Your task to perform on an android device: check data usage Image 0: 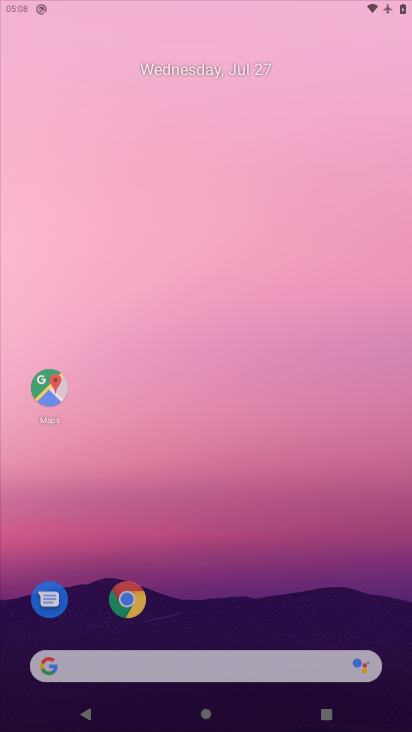
Step 0: press home button
Your task to perform on an android device: check data usage Image 1: 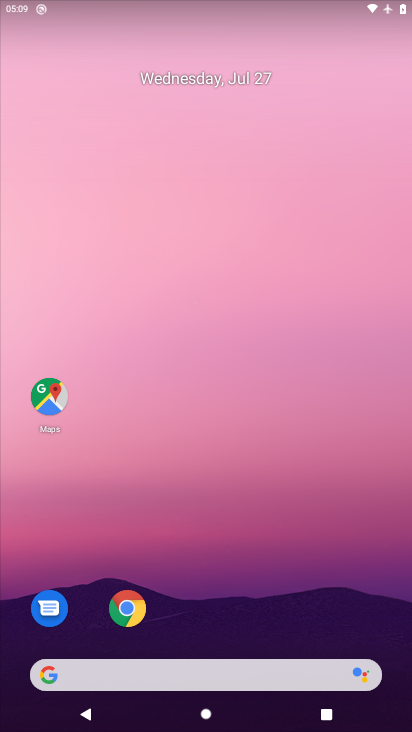
Step 1: click (245, 637)
Your task to perform on an android device: check data usage Image 2: 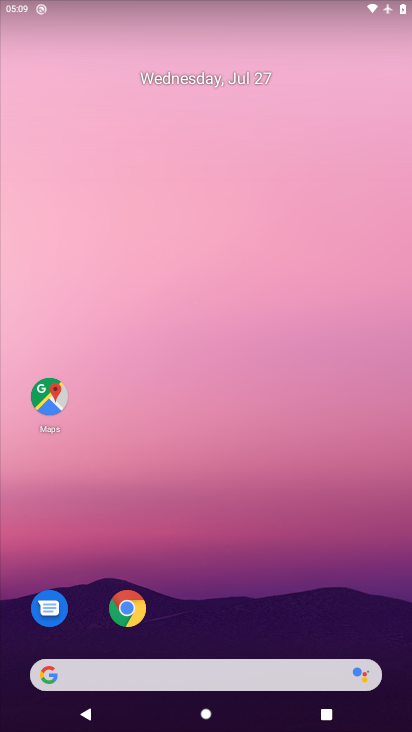
Step 2: drag from (252, 624) to (171, 168)
Your task to perform on an android device: check data usage Image 3: 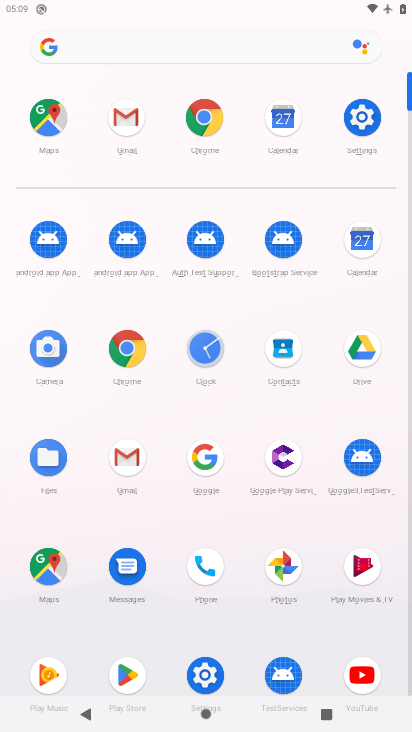
Step 3: click (366, 110)
Your task to perform on an android device: check data usage Image 4: 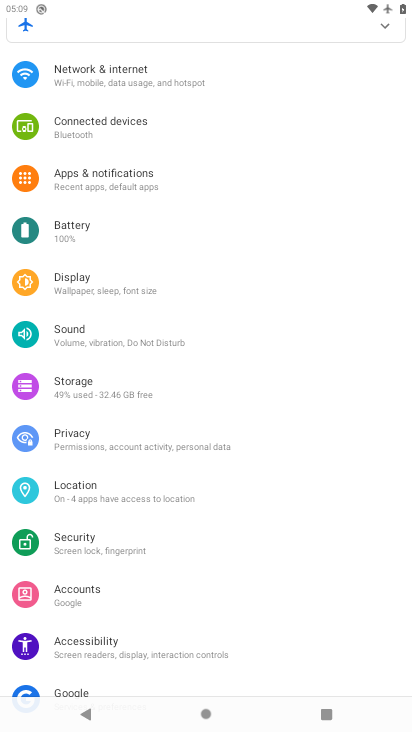
Step 4: click (128, 71)
Your task to perform on an android device: check data usage Image 5: 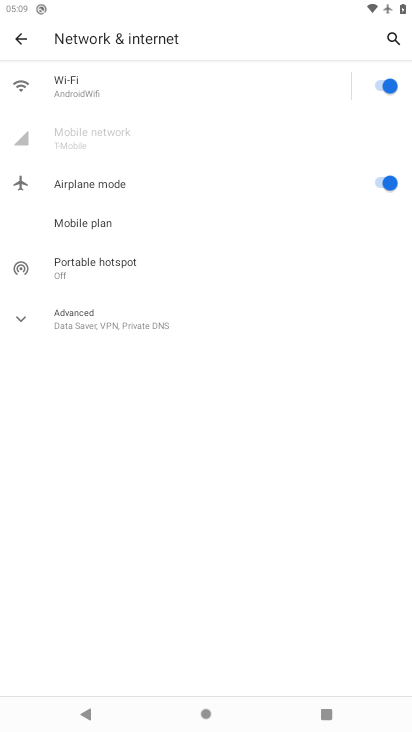
Step 5: click (79, 141)
Your task to perform on an android device: check data usage Image 6: 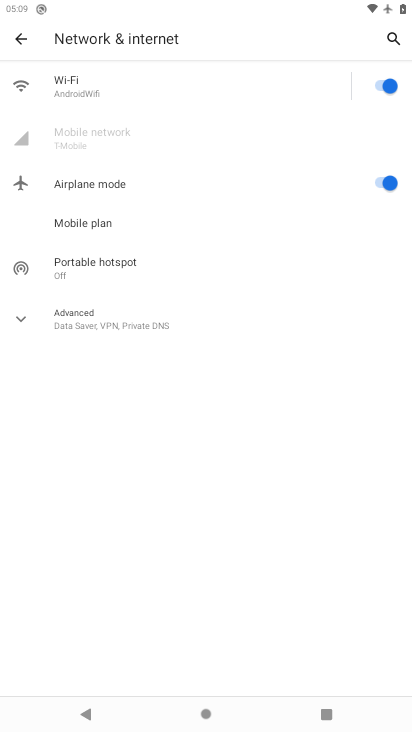
Step 6: click (79, 141)
Your task to perform on an android device: check data usage Image 7: 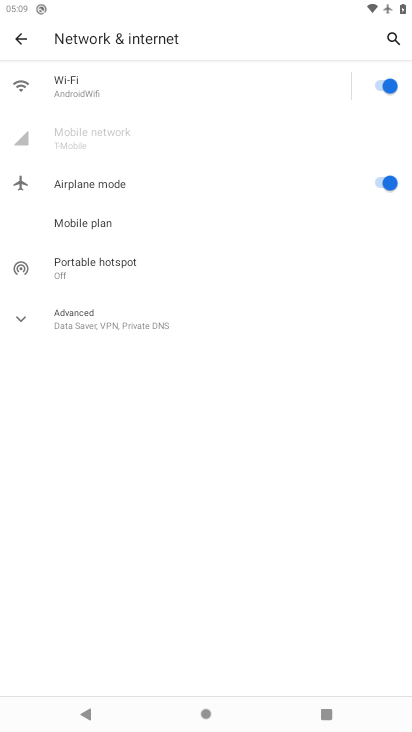
Step 7: drag from (242, 5) to (382, 613)
Your task to perform on an android device: check data usage Image 8: 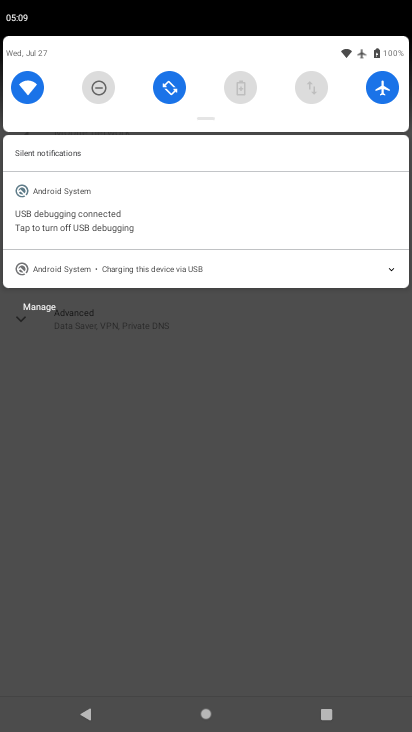
Step 8: click (381, 87)
Your task to perform on an android device: check data usage Image 9: 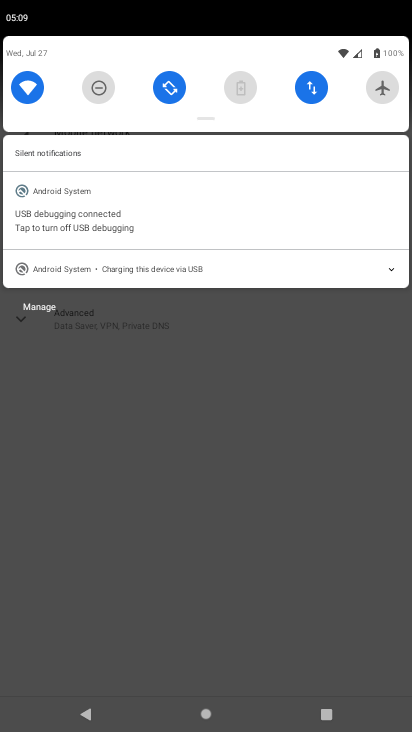
Step 9: drag from (212, 382) to (218, 161)
Your task to perform on an android device: check data usage Image 10: 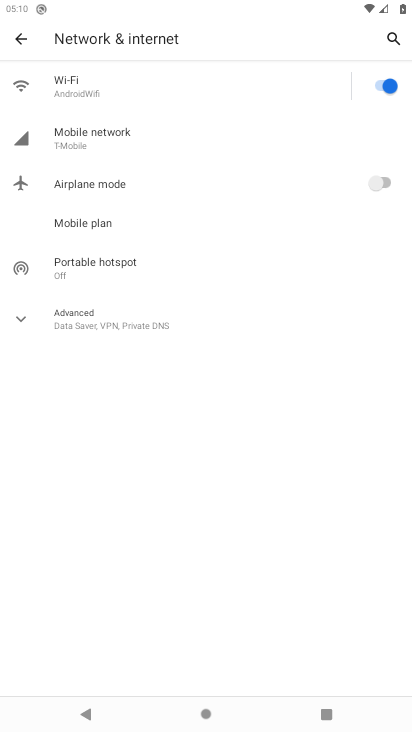
Step 10: click (87, 138)
Your task to perform on an android device: check data usage Image 11: 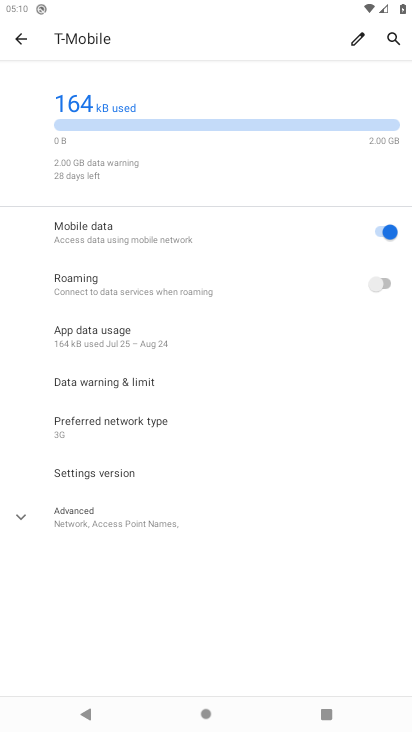
Step 11: click (98, 327)
Your task to perform on an android device: check data usage Image 12: 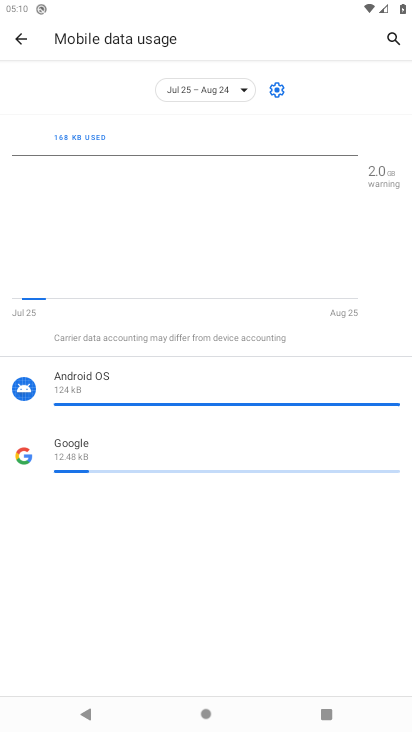
Step 12: task complete